Your task to perform on an android device: toggle translation in the chrome app Image 0: 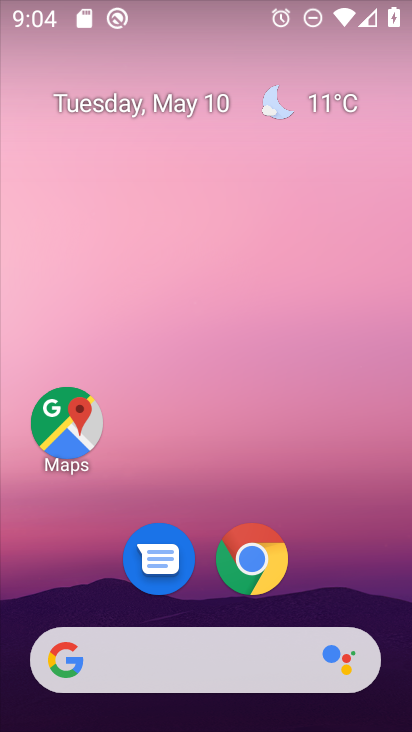
Step 0: click (245, 556)
Your task to perform on an android device: toggle translation in the chrome app Image 1: 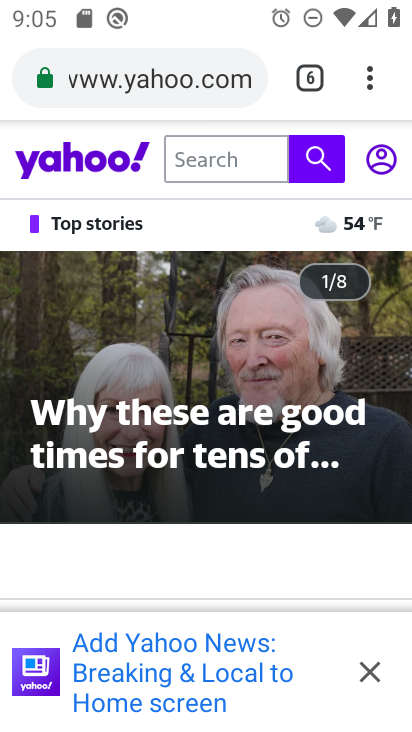
Step 1: click (371, 87)
Your task to perform on an android device: toggle translation in the chrome app Image 2: 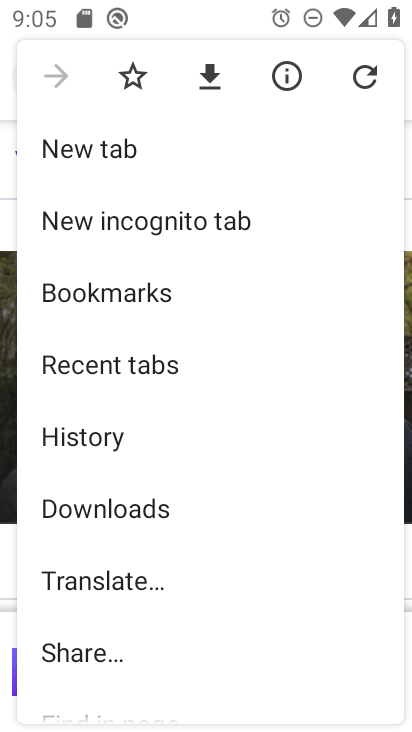
Step 2: drag from (130, 617) to (133, 203)
Your task to perform on an android device: toggle translation in the chrome app Image 3: 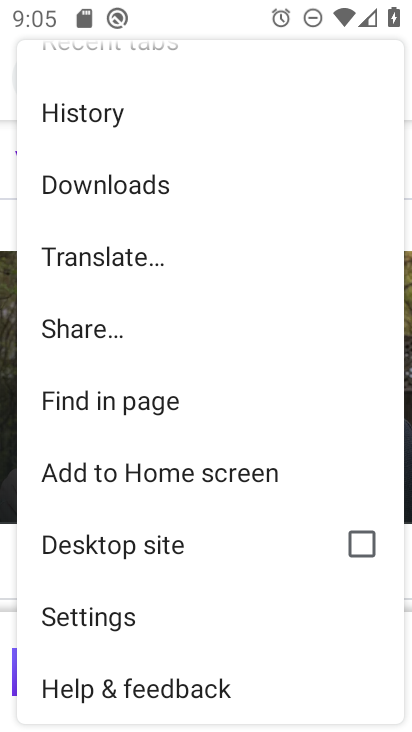
Step 3: click (90, 619)
Your task to perform on an android device: toggle translation in the chrome app Image 4: 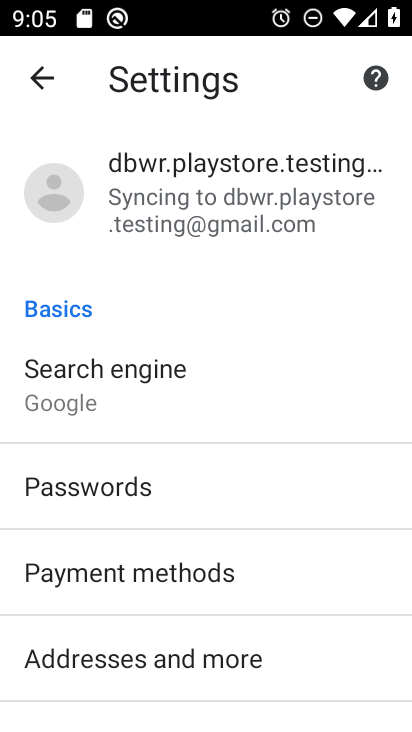
Step 4: drag from (88, 679) to (118, 343)
Your task to perform on an android device: toggle translation in the chrome app Image 5: 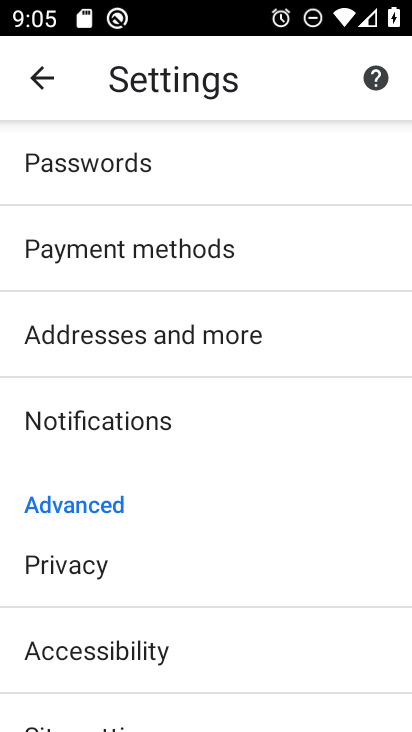
Step 5: drag from (162, 662) to (174, 386)
Your task to perform on an android device: toggle translation in the chrome app Image 6: 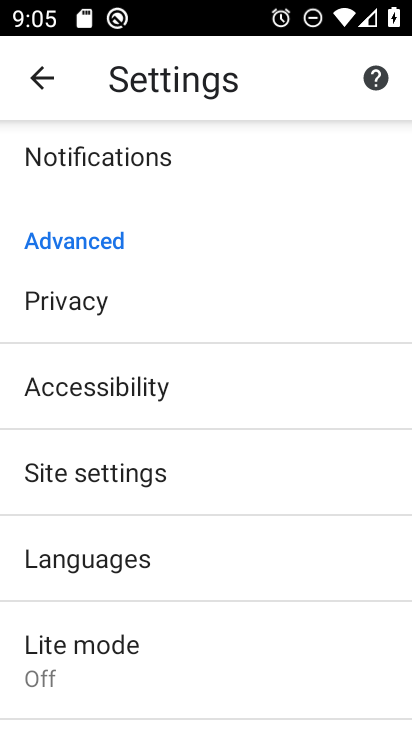
Step 6: click (101, 562)
Your task to perform on an android device: toggle translation in the chrome app Image 7: 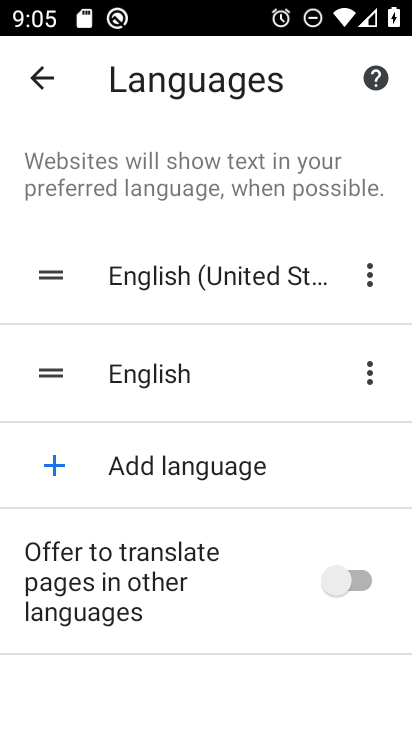
Step 7: click (360, 581)
Your task to perform on an android device: toggle translation in the chrome app Image 8: 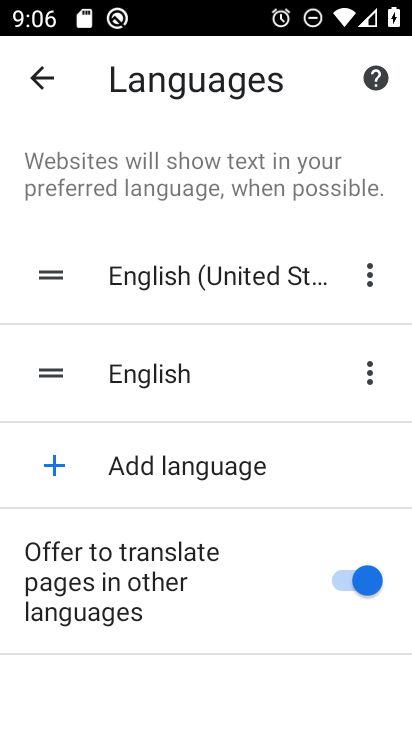
Step 8: click (342, 575)
Your task to perform on an android device: toggle translation in the chrome app Image 9: 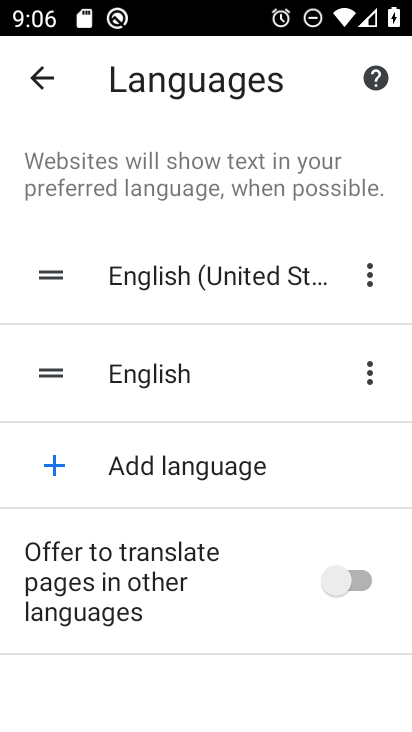
Step 9: task complete